Your task to perform on an android device: delete browsing data in the chrome app Image 0: 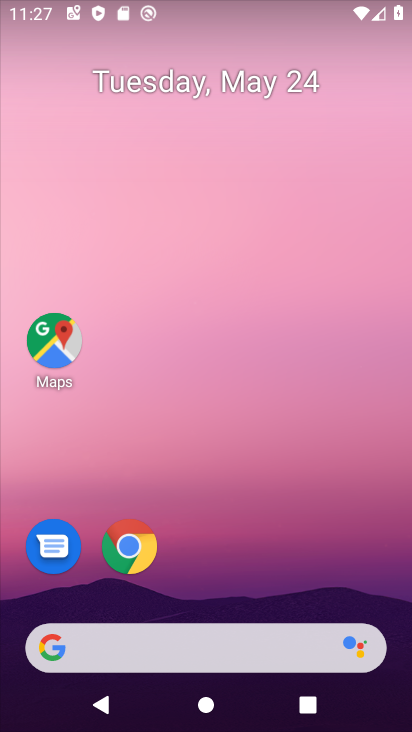
Step 0: drag from (257, 600) to (222, 104)
Your task to perform on an android device: delete browsing data in the chrome app Image 1: 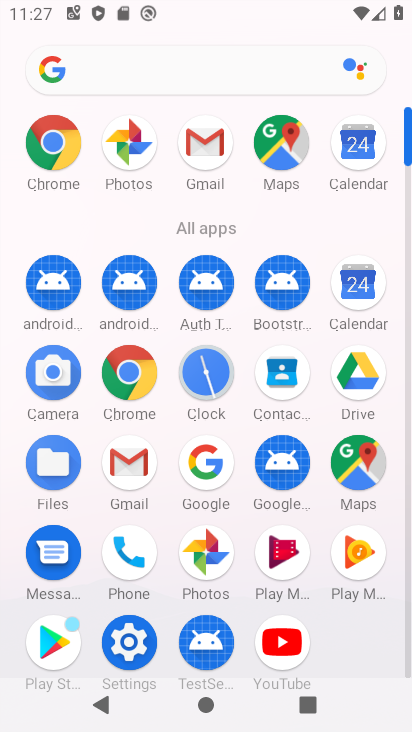
Step 1: click (53, 148)
Your task to perform on an android device: delete browsing data in the chrome app Image 2: 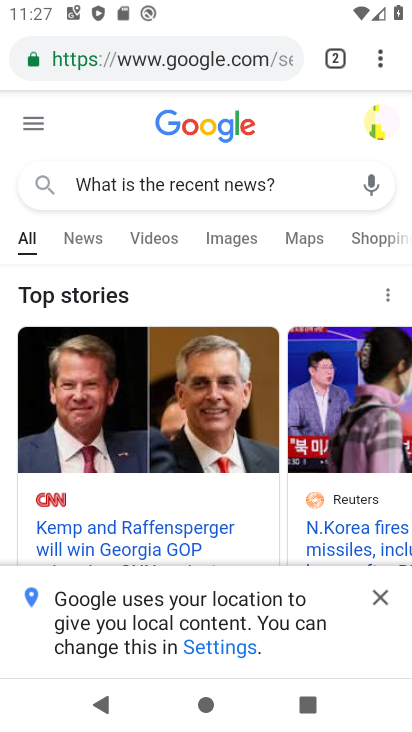
Step 2: click (387, 49)
Your task to perform on an android device: delete browsing data in the chrome app Image 3: 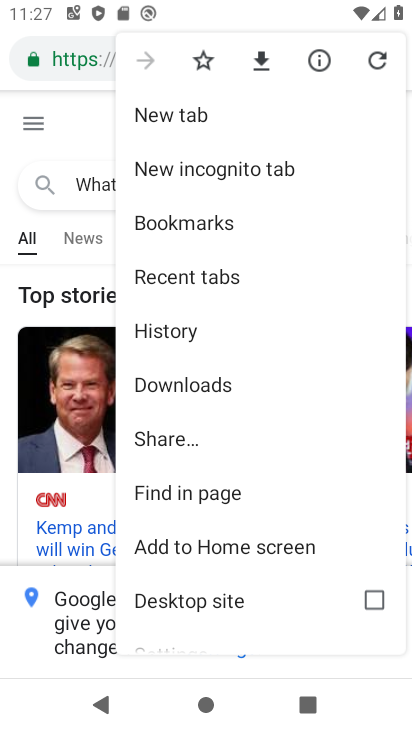
Step 3: click (221, 328)
Your task to perform on an android device: delete browsing data in the chrome app Image 4: 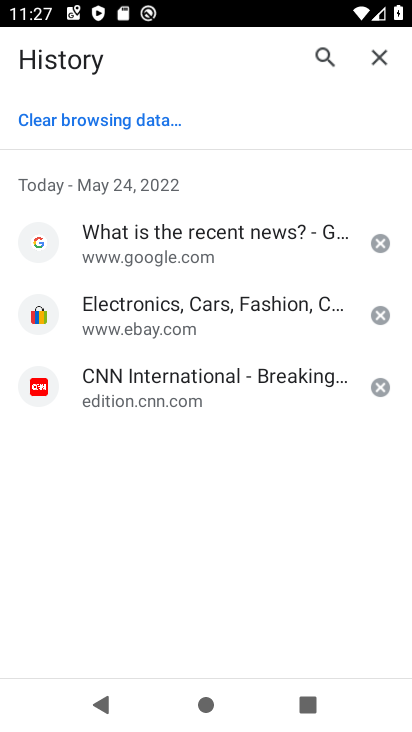
Step 4: click (122, 118)
Your task to perform on an android device: delete browsing data in the chrome app Image 5: 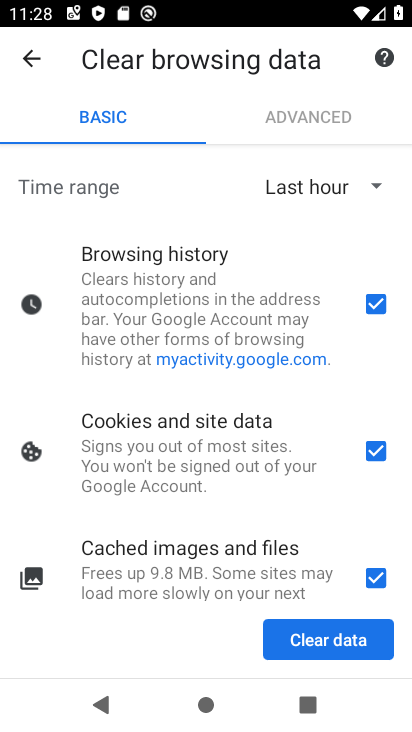
Step 5: click (369, 580)
Your task to perform on an android device: delete browsing data in the chrome app Image 6: 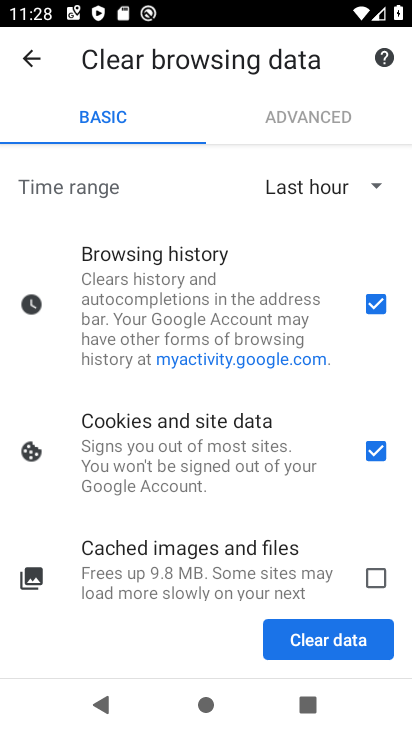
Step 6: click (373, 452)
Your task to perform on an android device: delete browsing data in the chrome app Image 7: 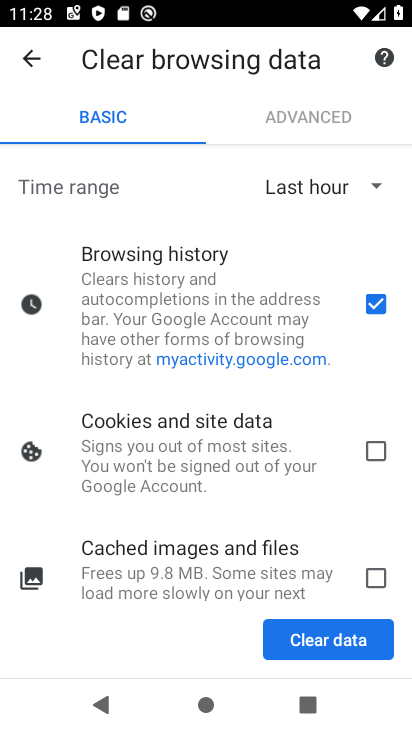
Step 7: click (360, 634)
Your task to perform on an android device: delete browsing data in the chrome app Image 8: 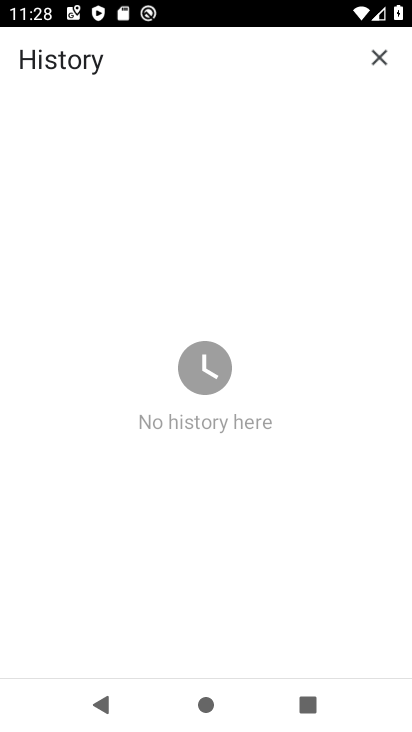
Step 8: task complete